Your task to perform on an android device: turn off airplane mode Image 0: 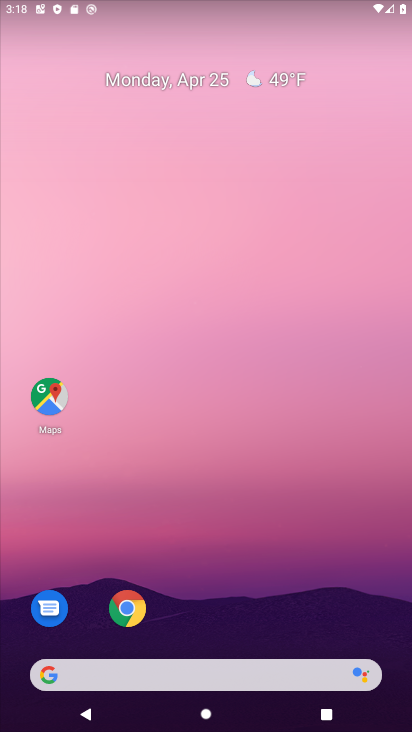
Step 0: drag from (236, 632) to (411, 322)
Your task to perform on an android device: turn off airplane mode Image 1: 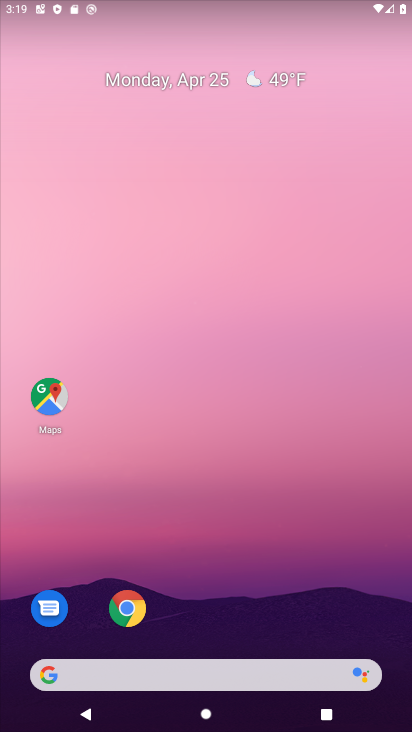
Step 1: drag from (208, 628) to (286, 41)
Your task to perform on an android device: turn off airplane mode Image 2: 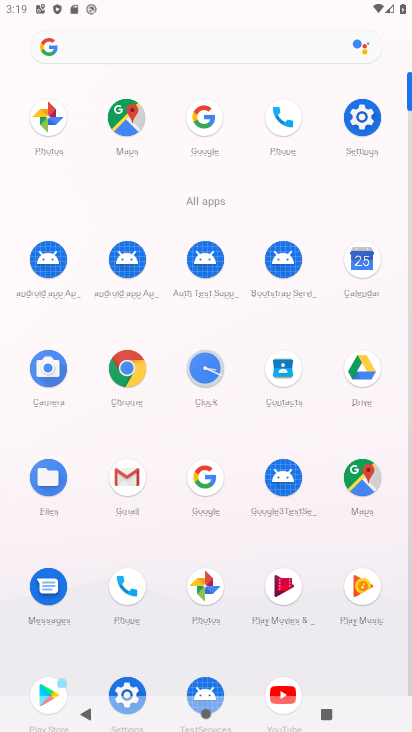
Step 2: click (364, 125)
Your task to perform on an android device: turn off airplane mode Image 3: 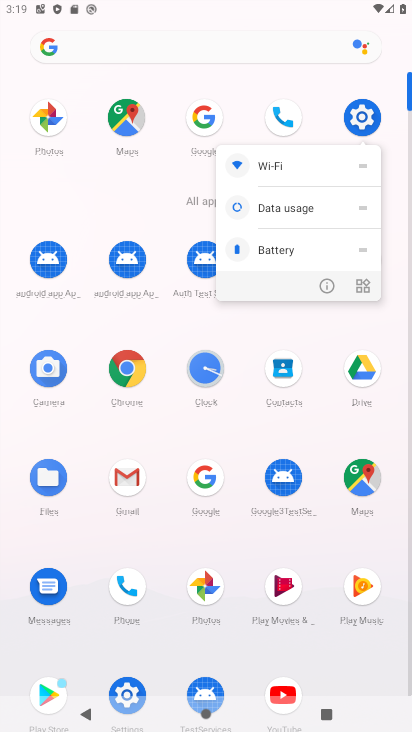
Step 3: click (367, 127)
Your task to perform on an android device: turn off airplane mode Image 4: 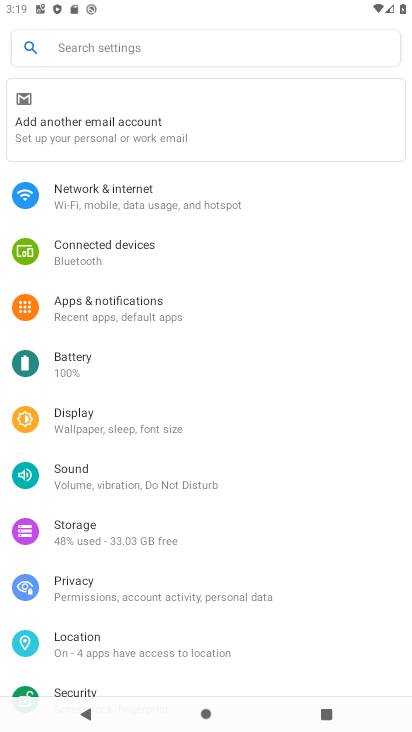
Step 4: click (214, 199)
Your task to perform on an android device: turn off airplane mode Image 5: 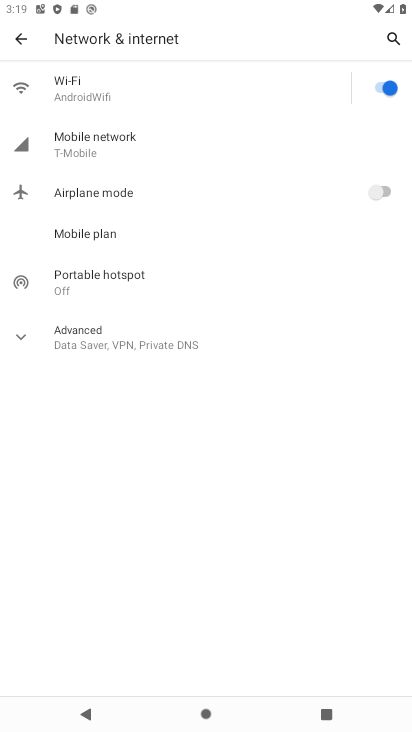
Step 5: task complete